Your task to perform on an android device: turn off notifications settings in the gmail app Image 0: 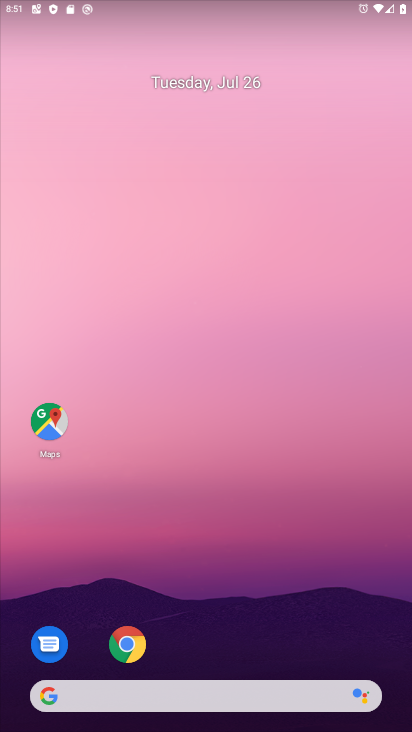
Step 0: drag from (262, 630) to (282, 150)
Your task to perform on an android device: turn off notifications settings in the gmail app Image 1: 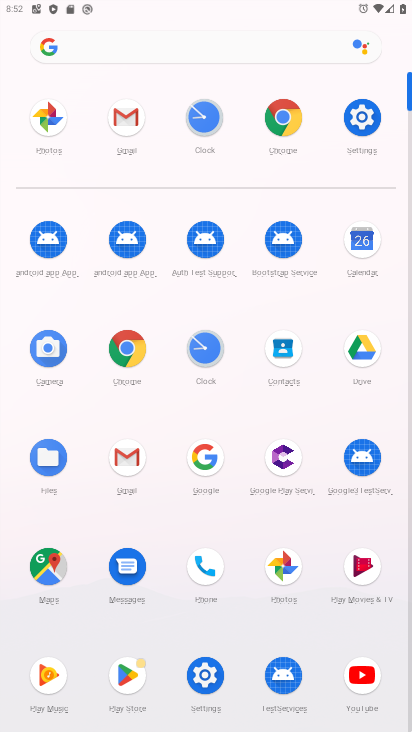
Step 1: click (118, 111)
Your task to perform on an android device: turn off notifications settings in the gmail app Image 2: 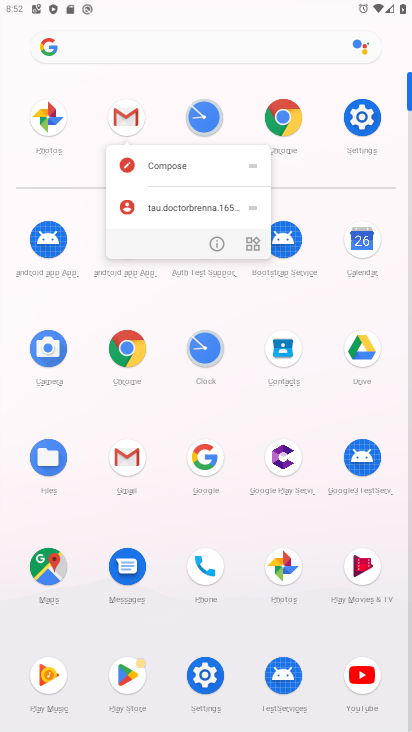
Step 2: click (135, 123)
Your task to perform on an android device: turn off notifications settings in the gmail app Image 3: 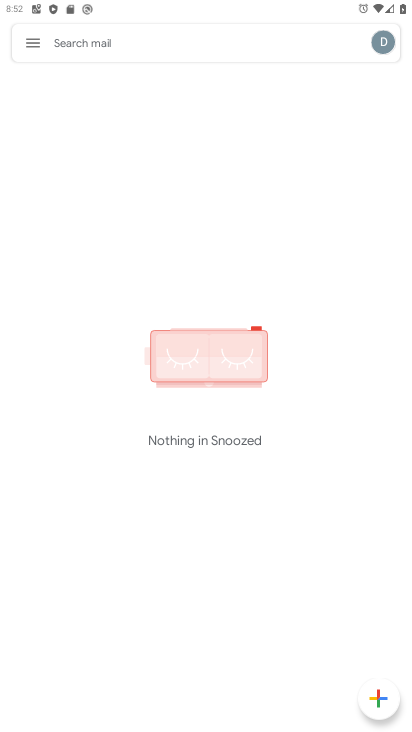
Step 3: click (30, 36)
Your task to perform on an android device: turn off notifications settings in the gmail app Image 4: 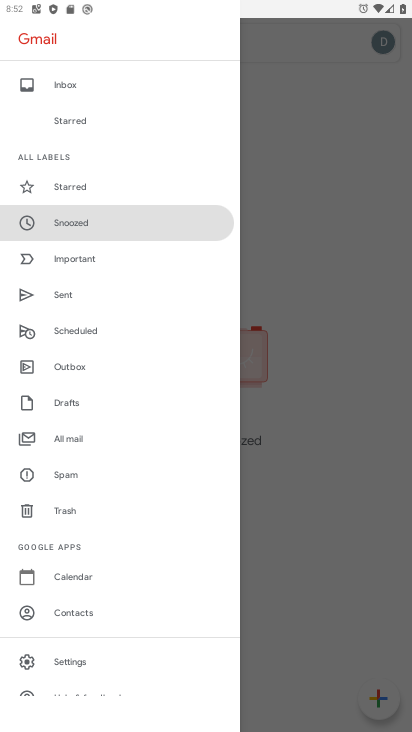
Step 4: click (70, 666)
Your task to perform on an android device: turn off notifications settings in the gmail app Image 5: 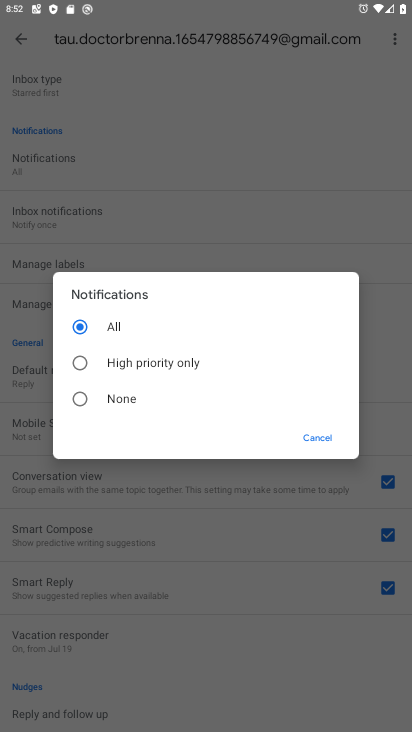
Step 5: click (109, 393)
Your task to perform on an android device: turn off notifications settings in the gmail app Image 6: 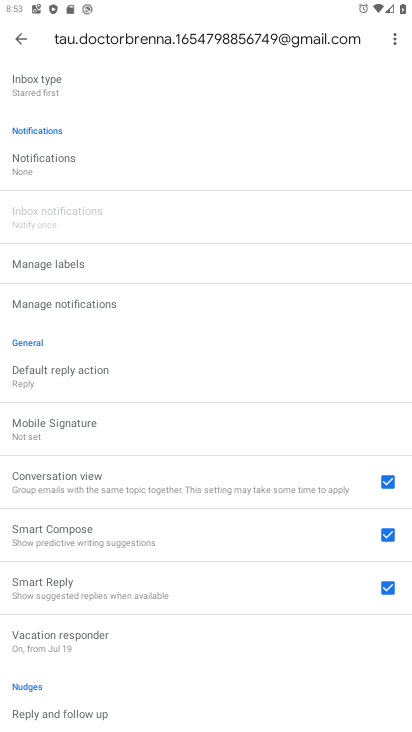
Step 6: task complete